Your task to perform on an android device: snooze an email in the gmail app Image 0: 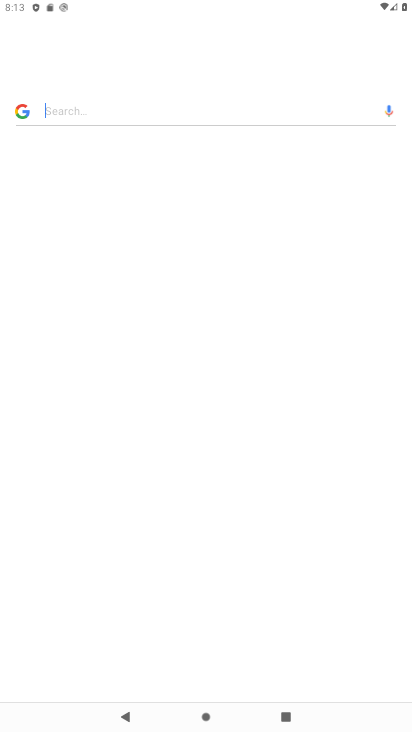
Step 0: click (137, 498)
Your task to perform on an android device: snooze an email in the gmail app Image 1: 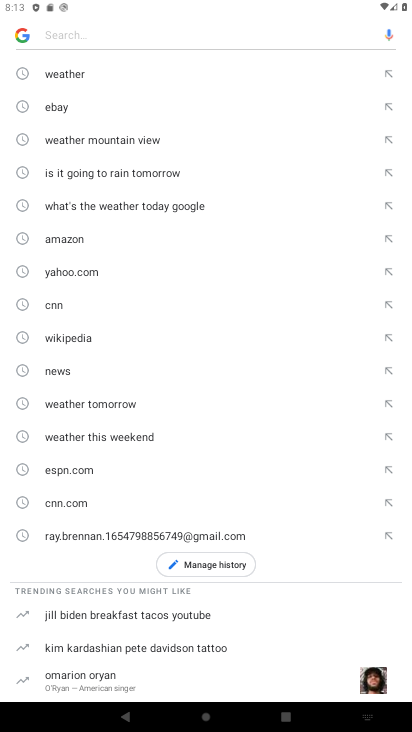
Step 1: press back button
Your task to perform on an android device: snooze an email in the gmail app Image 2: 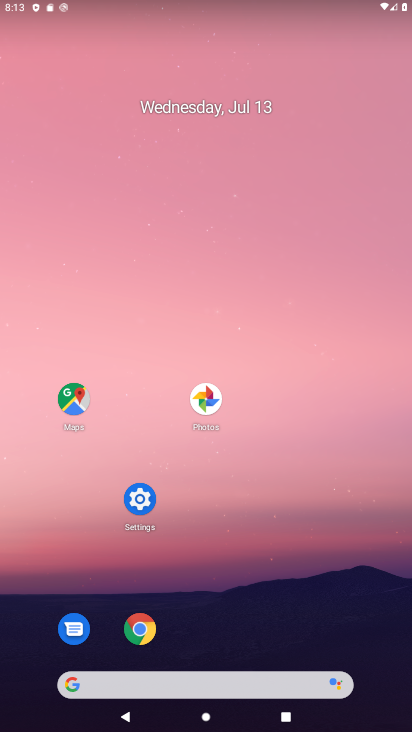
Step 2: drag from (383, 610) to (255, 74)
Your task to perform on an android device: snooze an email in the gmail app Image 3: 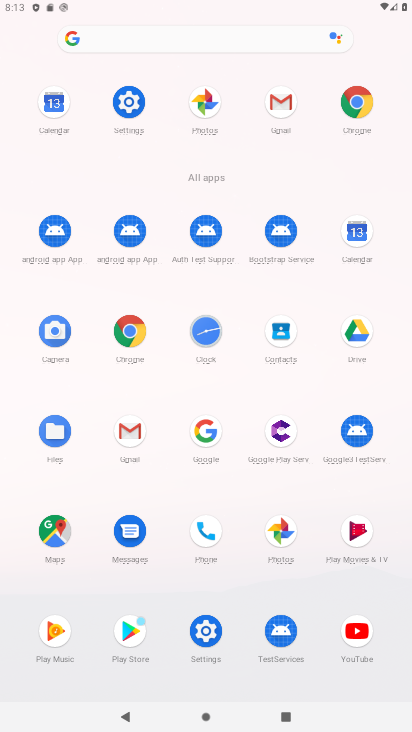
Step 3: click (127, 430)
Your task to perform on an android device: snooze an email in the gmail app Image 4: 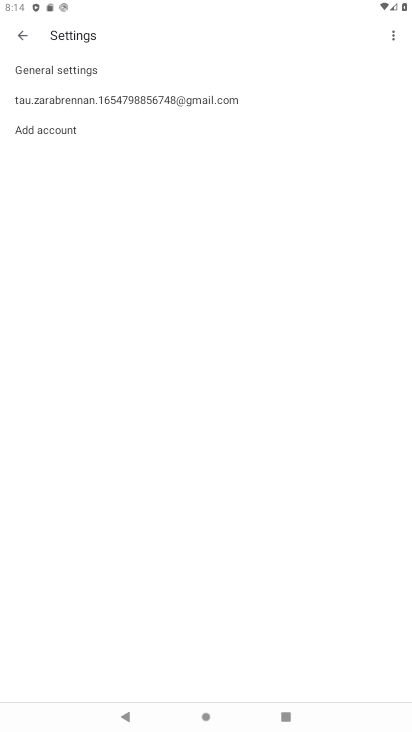
Step 4: click (16, 38)
Your task to perform on an android device: snooze an email in the gmail app Image 5: 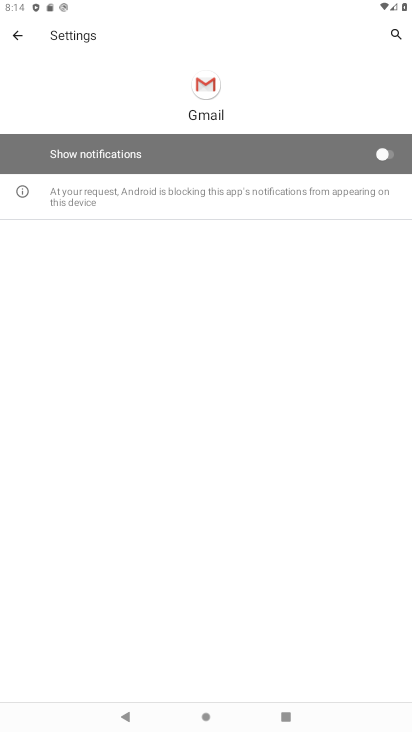
Step 5: click (18, 39)
Your task to perform on an android device: snooze an email in the gmail app Image 6: 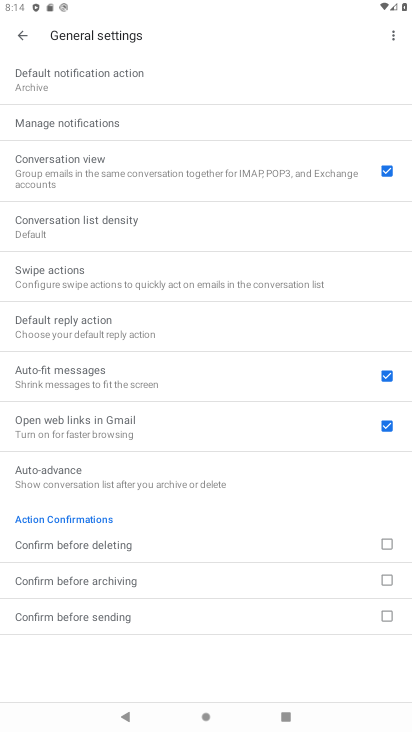
Step 6: drag from (160, 125) to (186, 433)
Your task to perform on an android device: snooze an email in the gmail app Image 7: 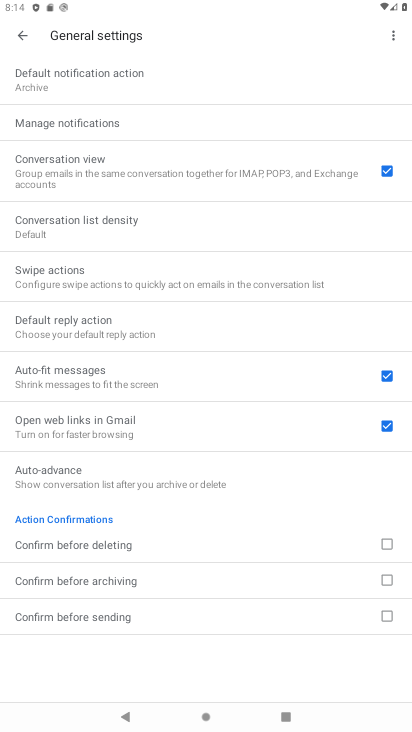
Step 7: click (23, 29)
Your task to perform on an android device: snooze an email in the gmail app Image 8: 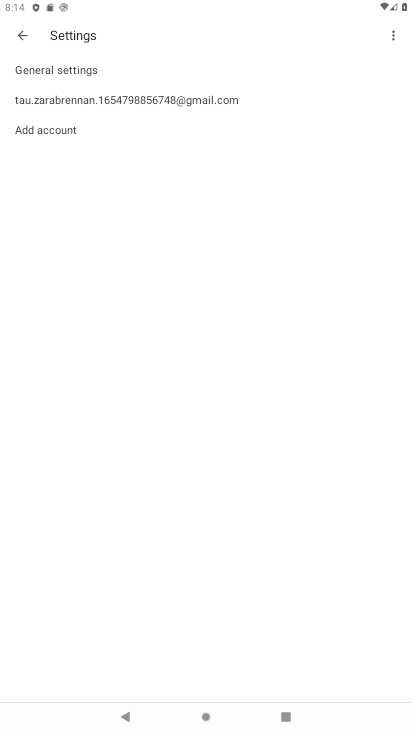
Step 8: click (23, 33)
Your task to perform on an android device: snooze an email in the gmail app Image 9: 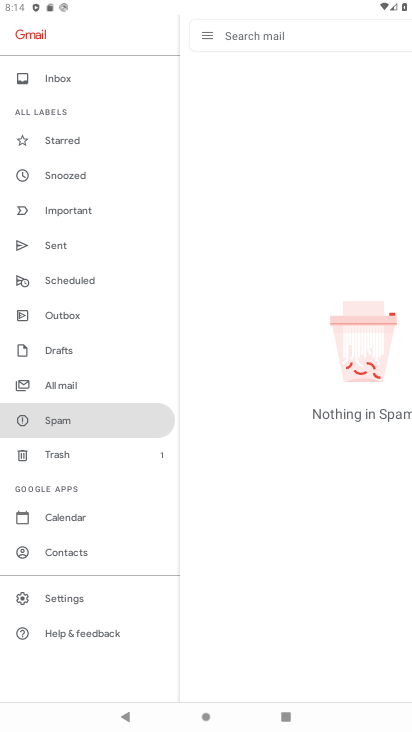
Step 9: drag from (129, 180) to (170, 521)
Your task to perform on an android device: snooze an email in the gmail app Image 10: 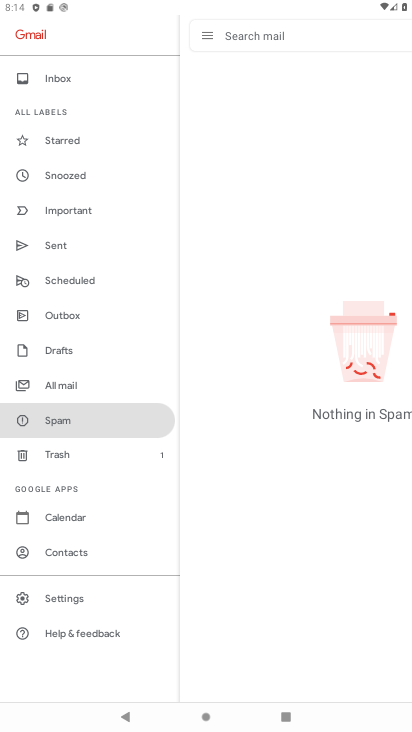
Step 10: click (64, 74)
Your task to perform on an android device: snooze an email in the gmail app Image 11: 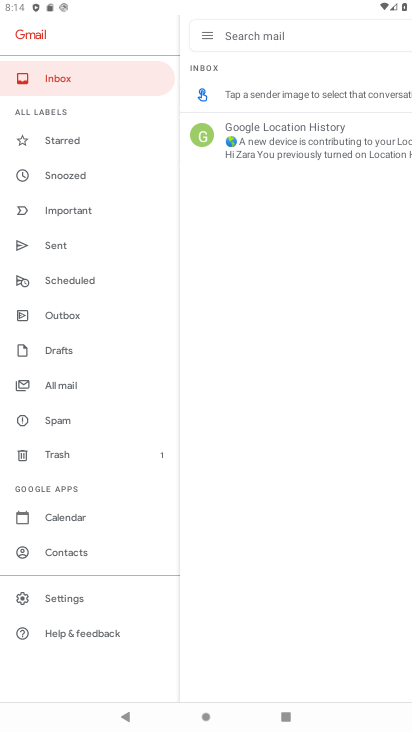
Step 11: task complete